Your task to perform on an android device: Go to Yahoo.com Image 0: 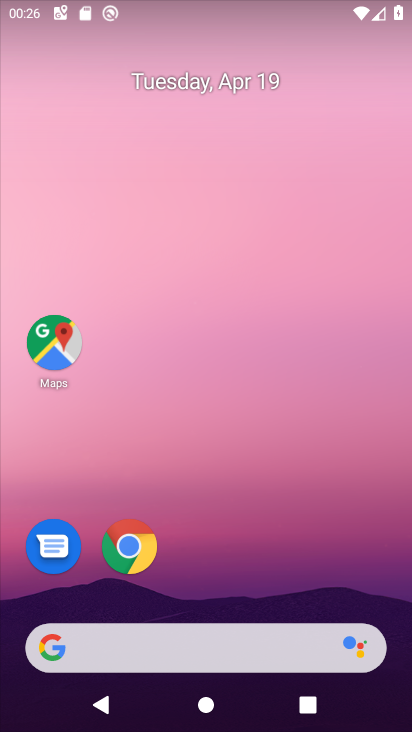
Step 0: click (124, 542)
Your task to perform on an android device: Go to Yahoo.com Image 1: 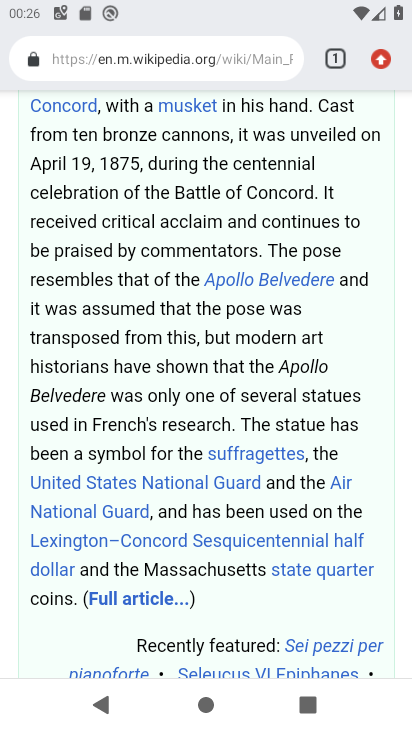
Step 1: click (332, 52)
Your task to perform on an android device: Go to Yahoo.com Image 2: 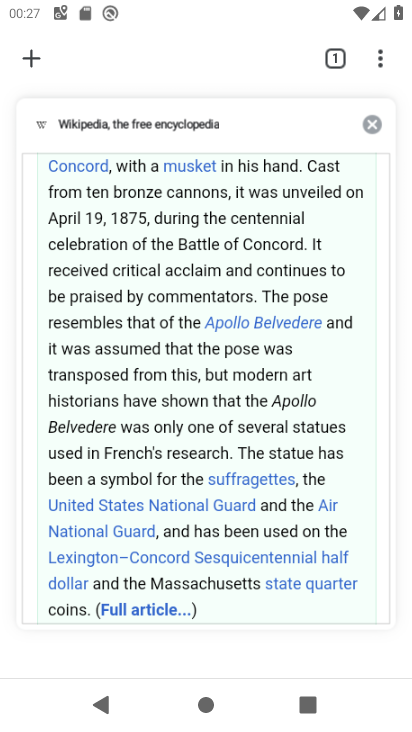
Step 2: click (371, 123)
Your task to perform on an android device: Go to Yahoo.com Image 3: 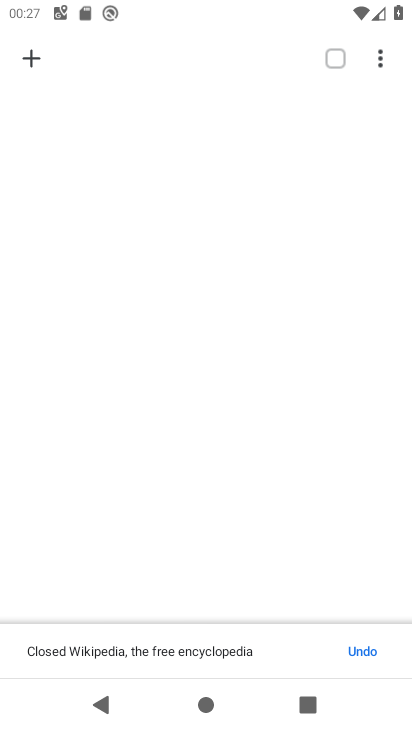
Step 3: click (39, 60)
Your task to perform on an android device: Go to Yahoo.com Image 4: 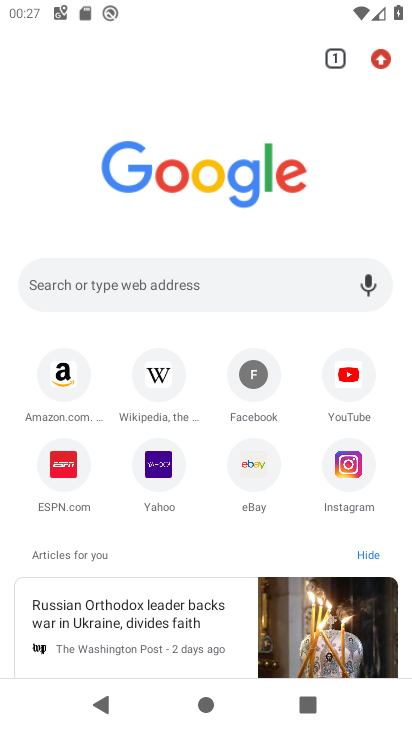
Step 4: click (161, 454)
Your task to perform on an android device: Go to Yahoo.com Image 5: 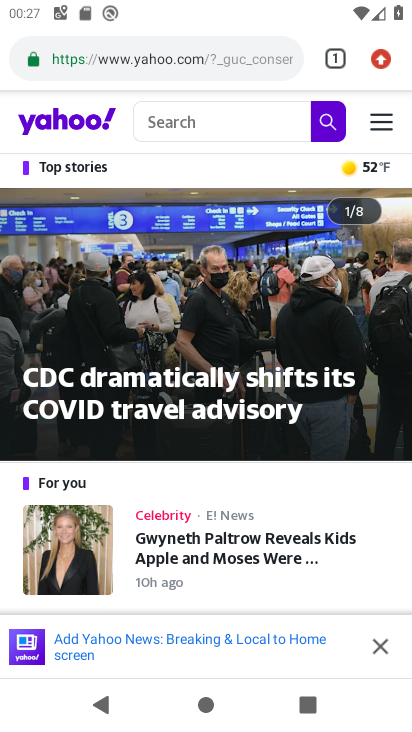
Step 5: task complete